Your task to perform on an android device: make emails show in primary in the gmail app Image 0: 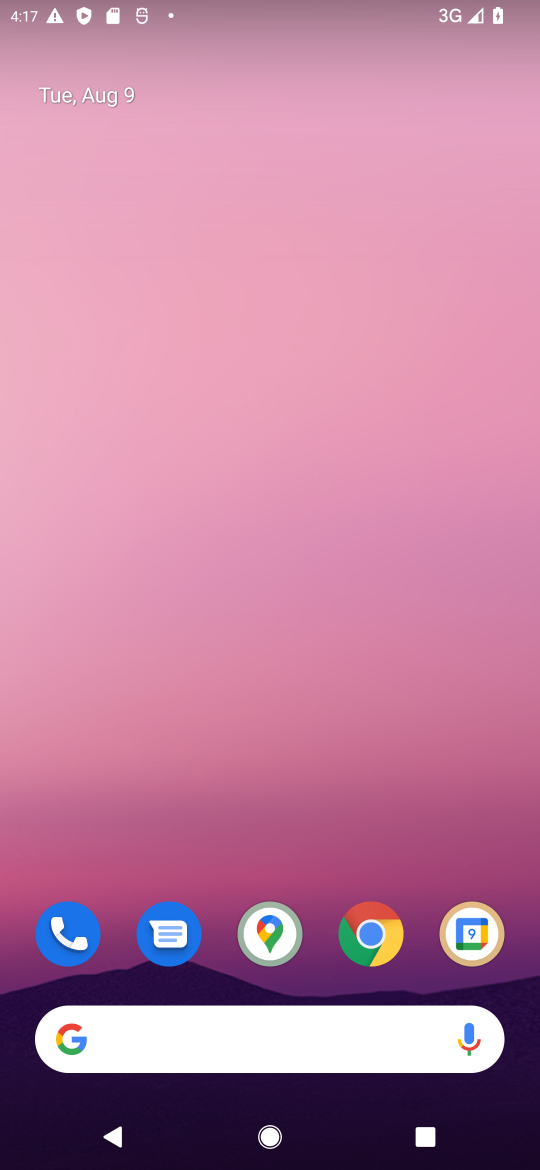
Step 0: drag from (328, 989) to (405, 3)
Your task to perform on an android device: make emails show in primary in the gmail app Image 1: 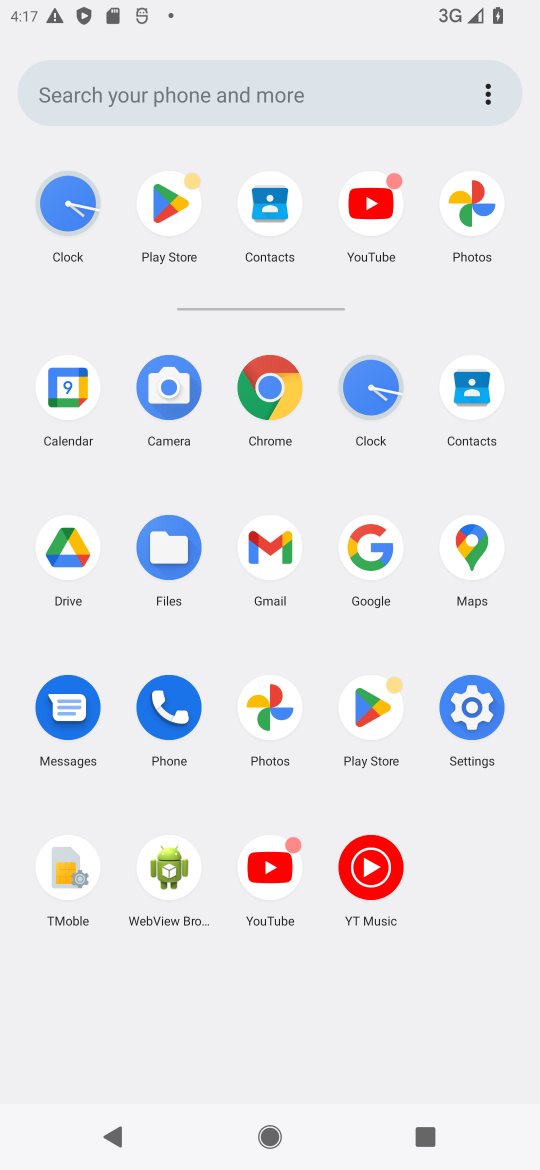
Step 1: click (280, 545)
Your task to perform on an android device: make emails show in primary in the gmail app Image 2: 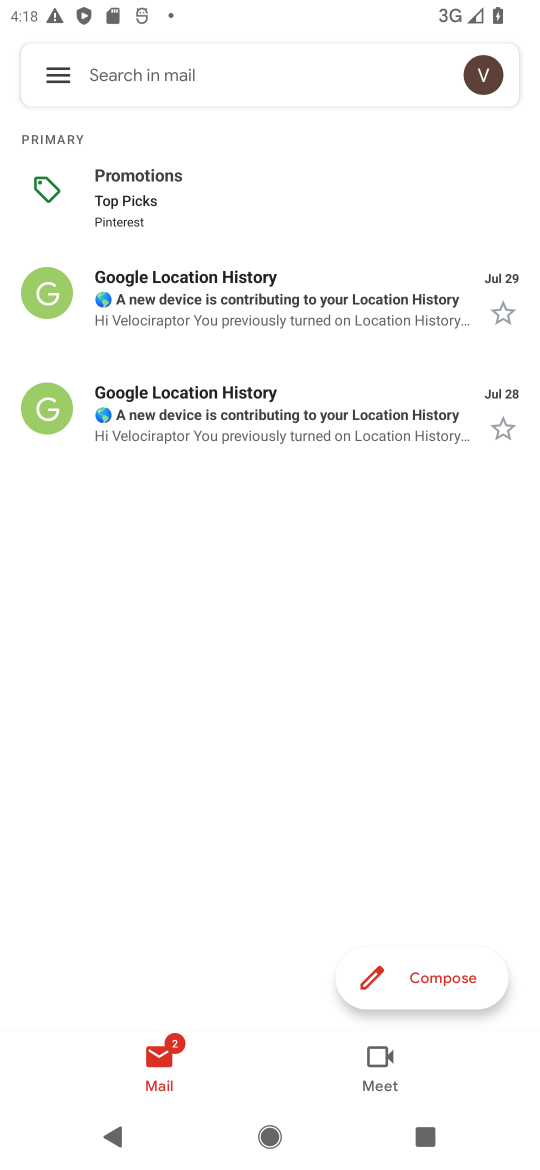
Step 2: task complete